Your task to perform on an android device: Is it going to rain today? Image 0: 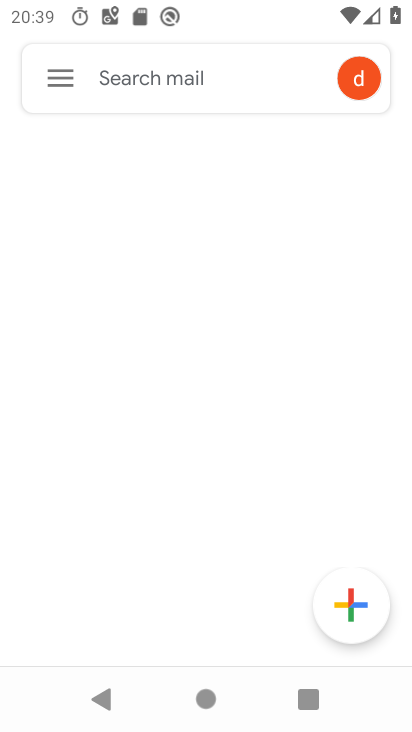
Step 0: press home button
Your task to perform on an android device: Is it going to rain today? Image 1: 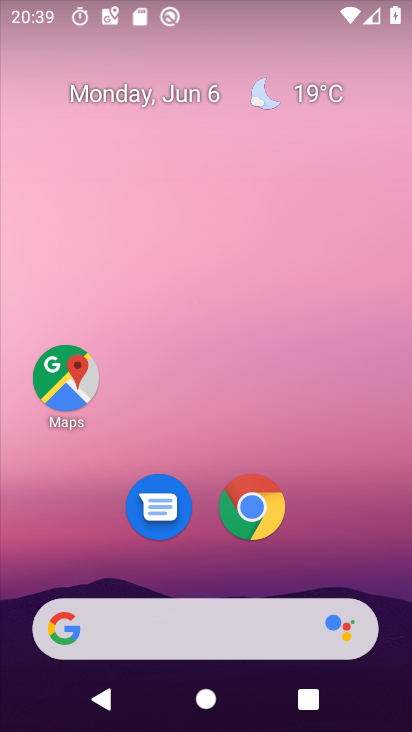
Step 1: click (256, 519)
Your task to perform on an android device: Is it going to rain today? Image 2: 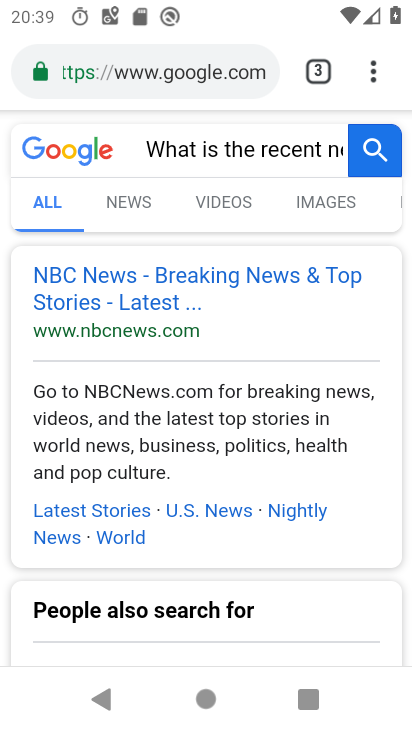
Step 2: click (222, 78)
Your task to perform on an android device: Is it going to rain today? Image 3: 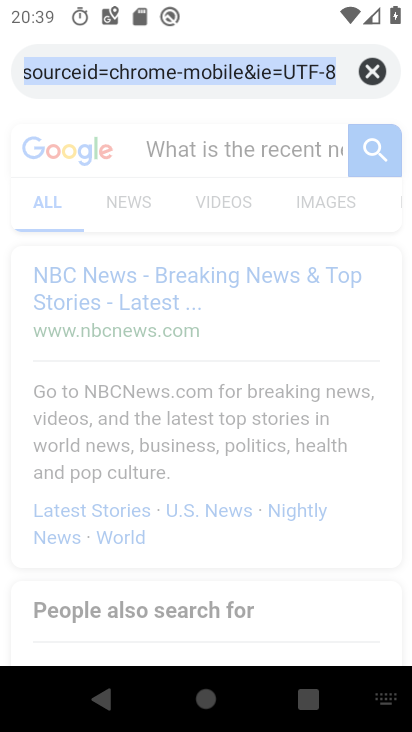
Step 3: type "Is it going to rain today?"
Your task to perform on an android device: Is it going to rain today? Image 4: 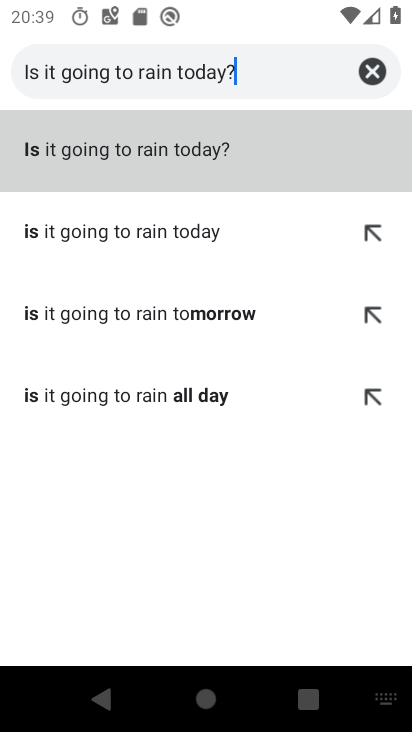
Step 4: type ""
Your task to perform on an android device: Is it going to rain today? Image 5: 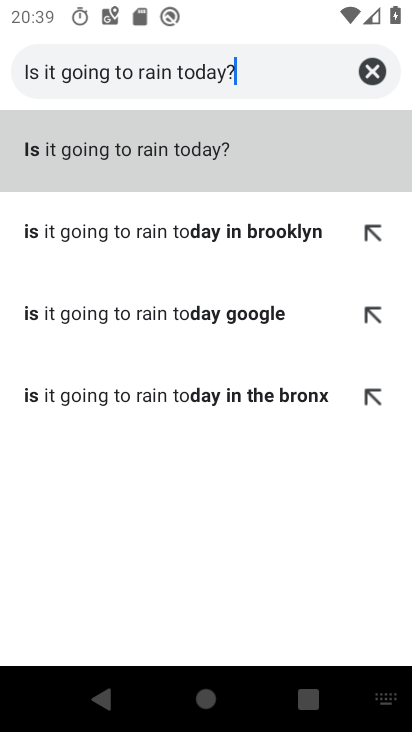
Step 5: click (118, 135)
Your task to perform on an android device: Is it going to rain today? Image 6: 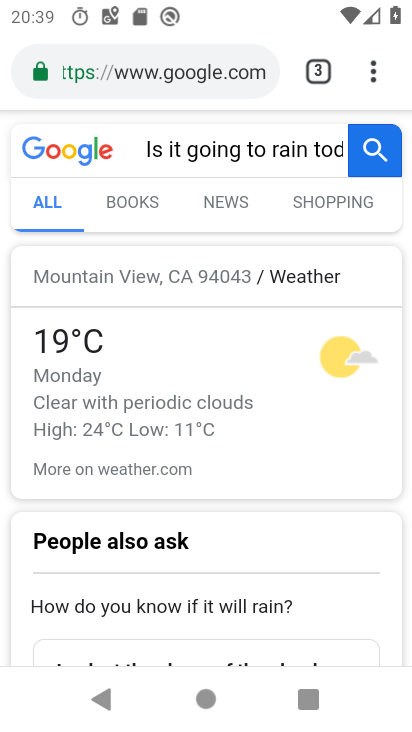
Step 6: task complete